Your task to perform on an android device: Search for seafood restaurants on Google Maps Image 0: 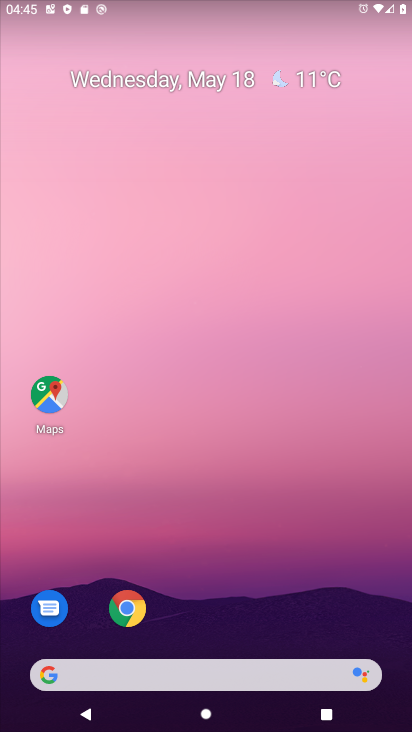
Step 0: click (46, 384)
Your task to perform on an android device: Search for seafood restaurants on Google Maps Image 1: 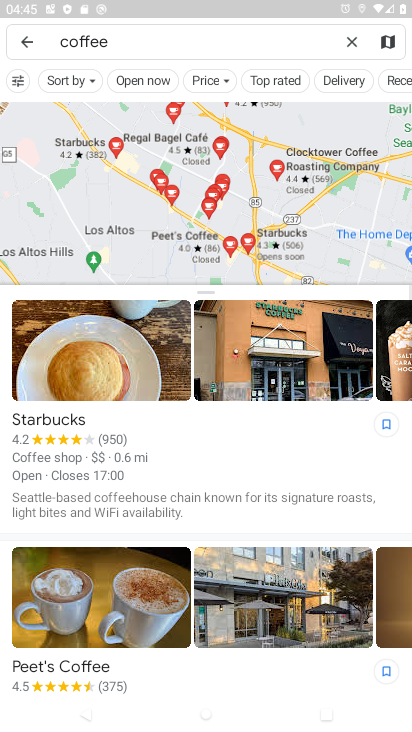
Step 1: click (348, 46)
Your task to perform on an android device: Search for seafood restaurants on Google Maps Image 2: 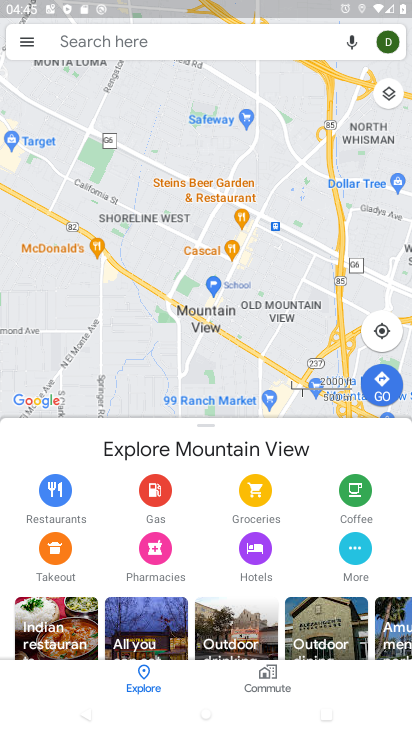
Step 2: click (154, 40)
Your task to perform on an android device: Search for seafood restaurants on Google Maps Image 3: 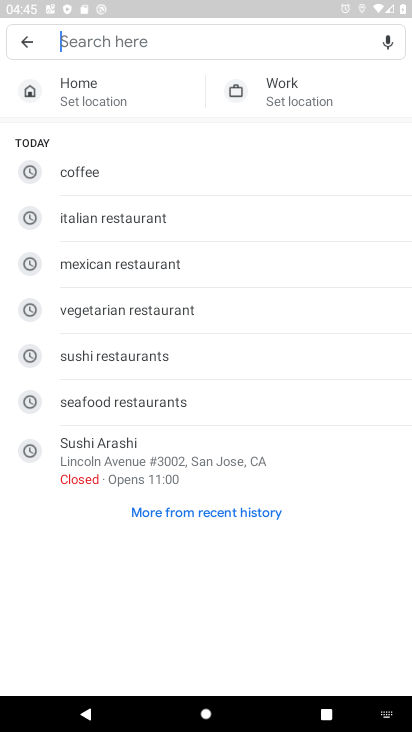
Step 3: click (112, 392)
Your task to perform on an android device: Search for seafood restaurants on Google Maps Image 4: 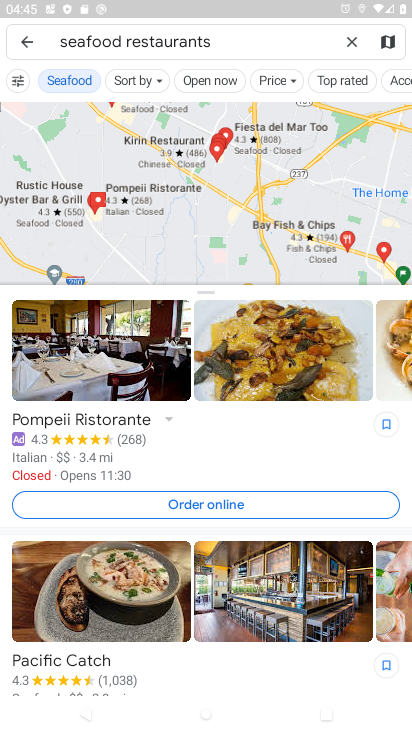
Step 4: task complete